Your task to perform on an android device: What's a good restaurant in San Diego? Image 0: 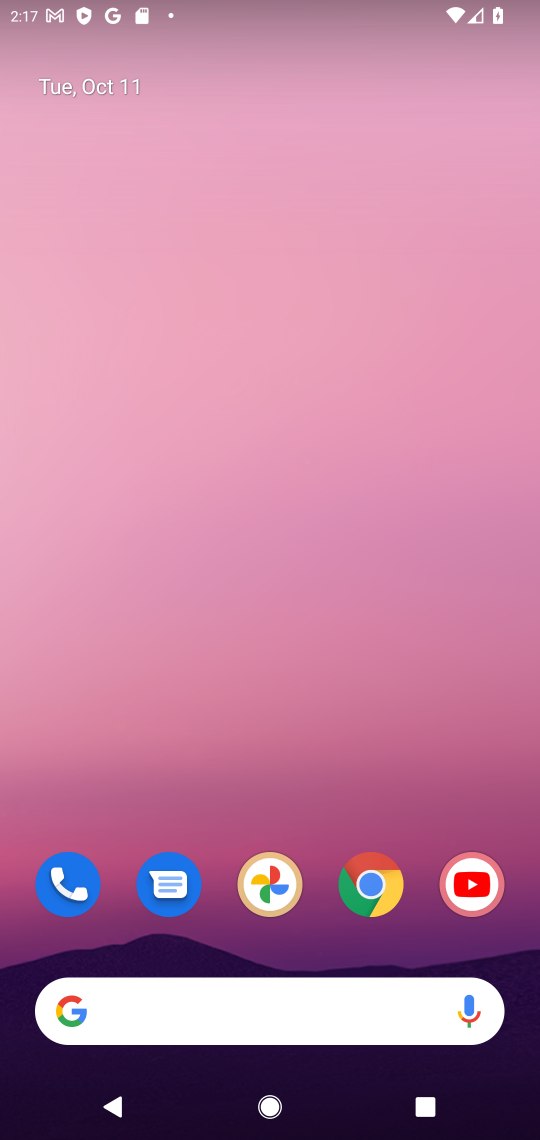
Step 0: click (372, 885)
Your task to perform on an android device: What's a good restaurant in San Diego? Image 1: 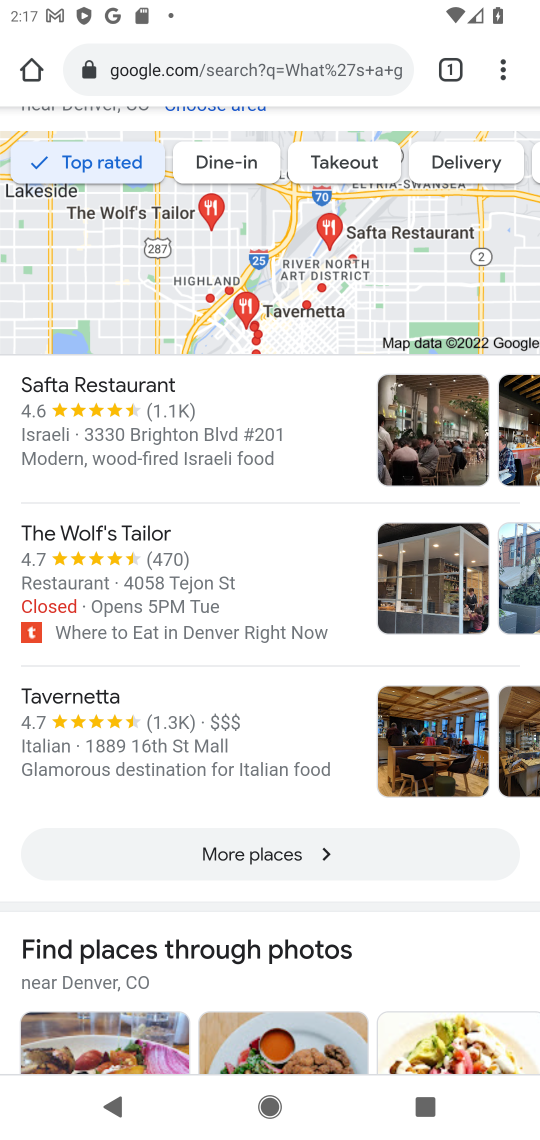
Step 1: click (241, 68)
Your task to perform on an android device: What's a good restaurant in San Diego? Image 2: 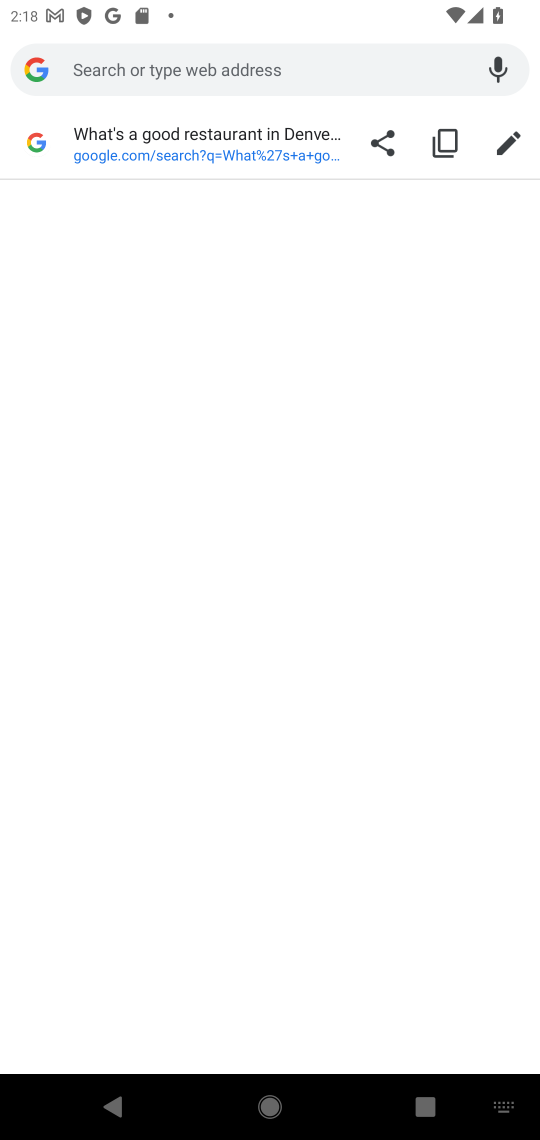
Step 2: type "What's a good restaurant in San Diego"
Your task to perform on an android device: What's a good restaurant in San Diego? Image 3: 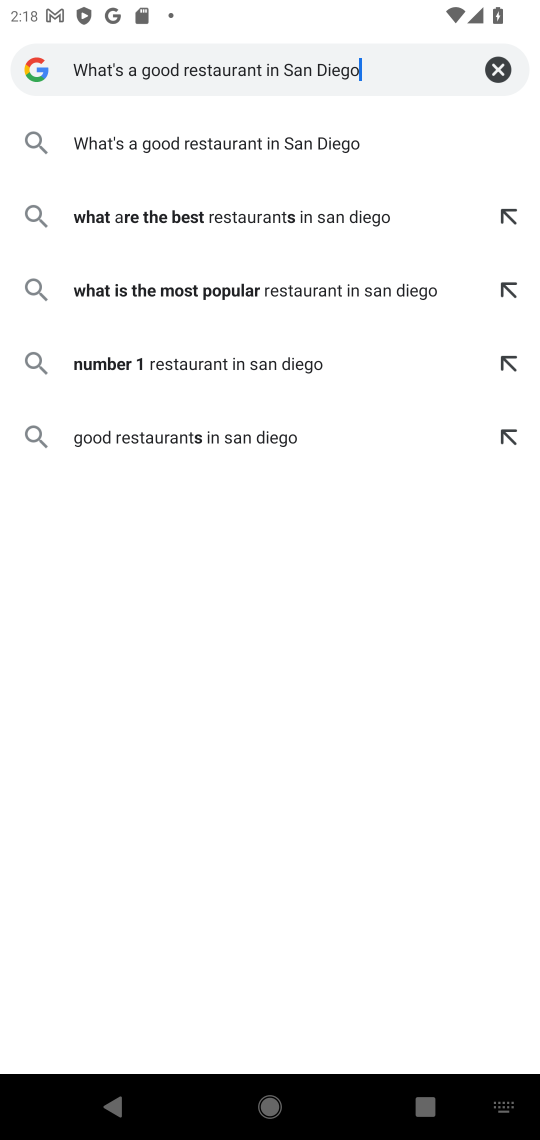
Step 3: click (192, 146)
Your task to perform on an android device: What's a good restaurant in San Diego? Image 4: 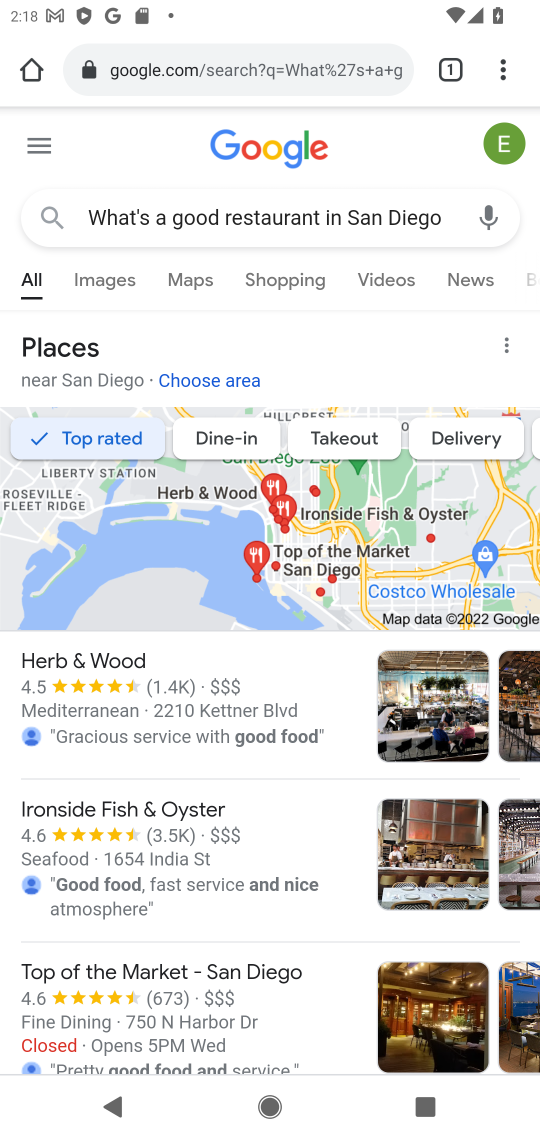
Step 4: task complete